Your task to perform on an android device: Turn on the flashlight Image 0: 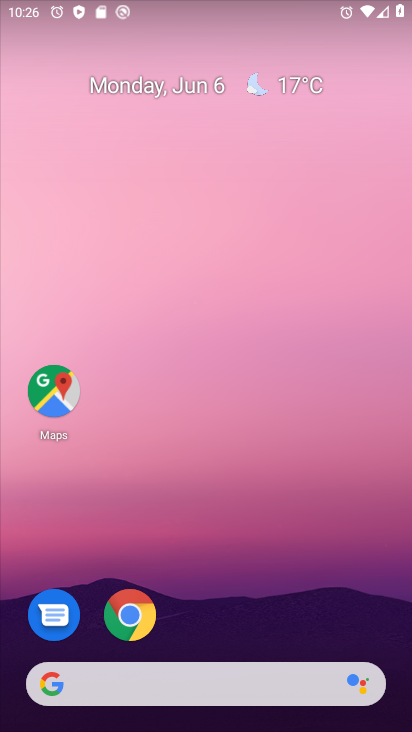
Step 0: drag from (263, 462) to (257, 603)
Your task to perform on an android device: Turn on the flashlight Image 1: 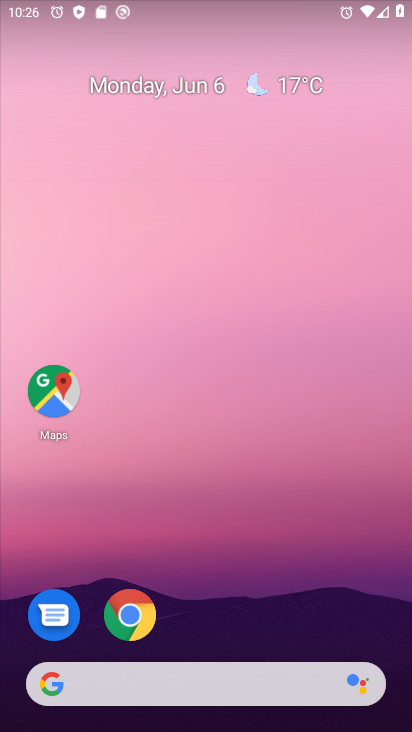
Step 1: task complete